Your task to perform on an android device: Find coffee shops on Maps Image 0: 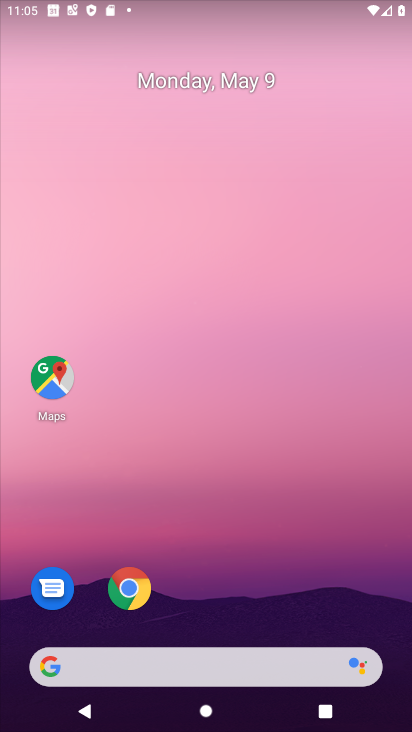
Step 0: drag from (189, 639) to (177, 32)
Your task to perform on an android device: Find coffee shops on Maps Image 1: 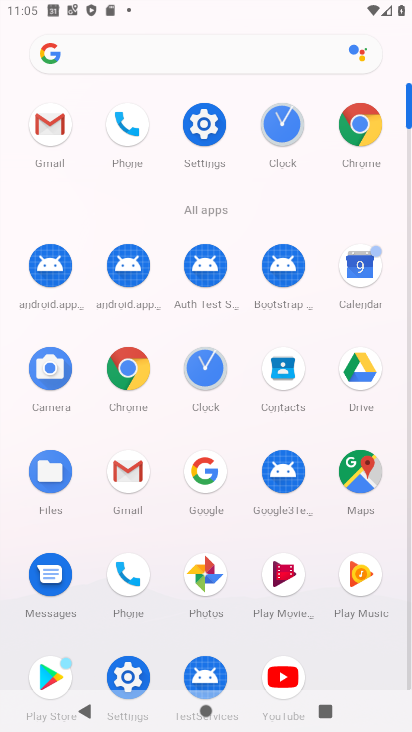
Step 1: click (361, 473)
Your task to perform on an android device: Find coffee shops on Maps Image 2: 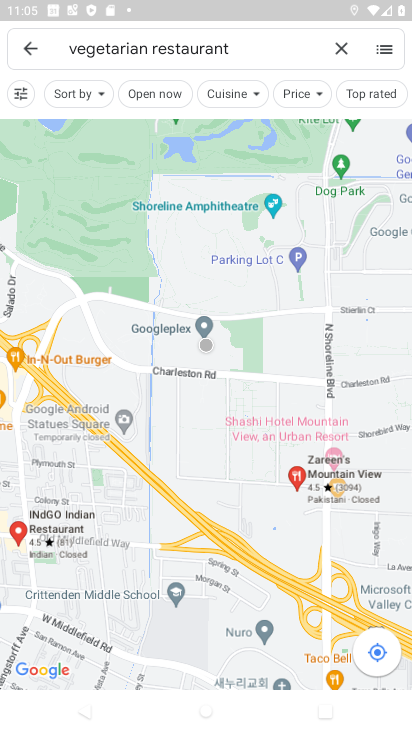
Step 2: click (224, 53)
Your task to perform on an android device: Find coffee shops on Maps Image 3: 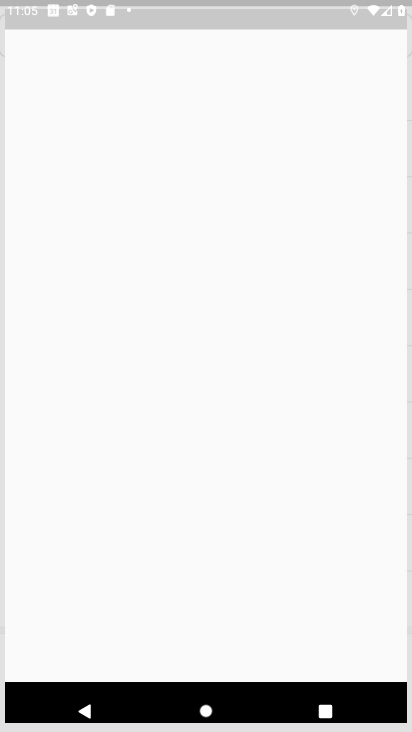
Step 3: click (380, 42)
Your task to perform on an android device: Find coffee shops on Maps Image 4: 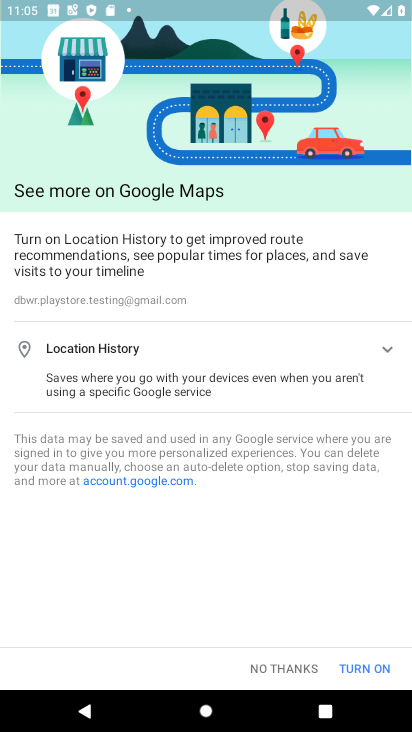
Step 4: click (362, 665)
Your task to perform on an android device: Find coffee shops on Maps Image 5: 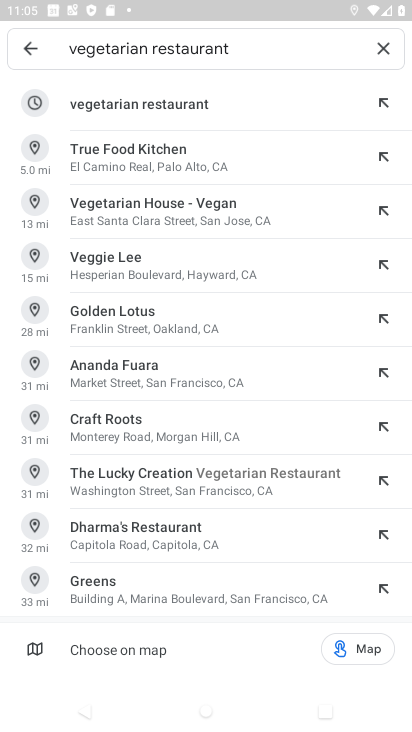
Step 5: click (386, 42)
Your task to perform on an android device: Find coffee shops on Maps Image 6: 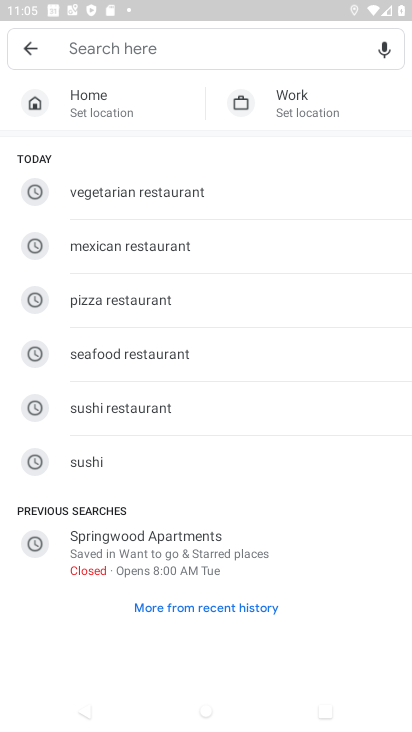
Step 6: click (172, 54)
Your task to perform on an android device: Find coffee shops on Maps Image 7: 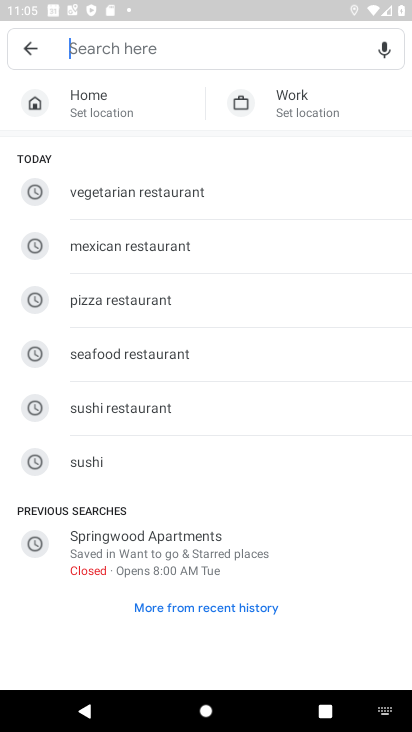
Step 7: type "coffee shop'"
Your task to perform on an android device: Find coffee shops on Maps Image 8: 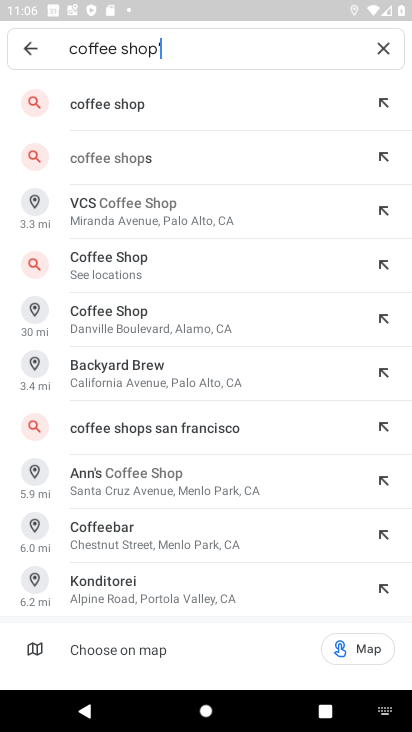
Step 8: click (195, 139)
Your task to perform on an android device: Find coffee shops on Maps Image 9: 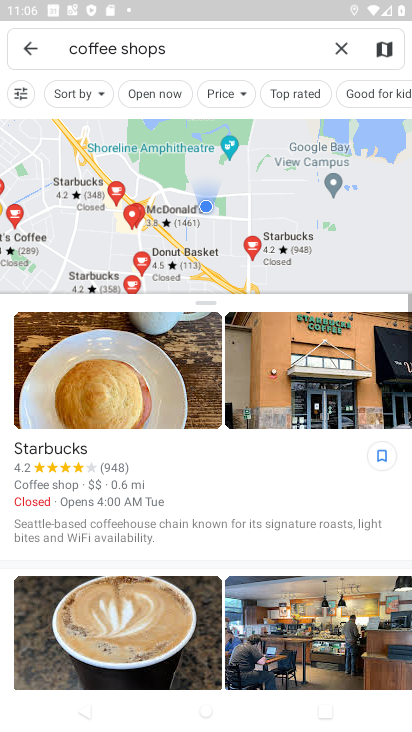
Step 9: task complete